Your task to perform on an android device: What is the recent news? Image 0: 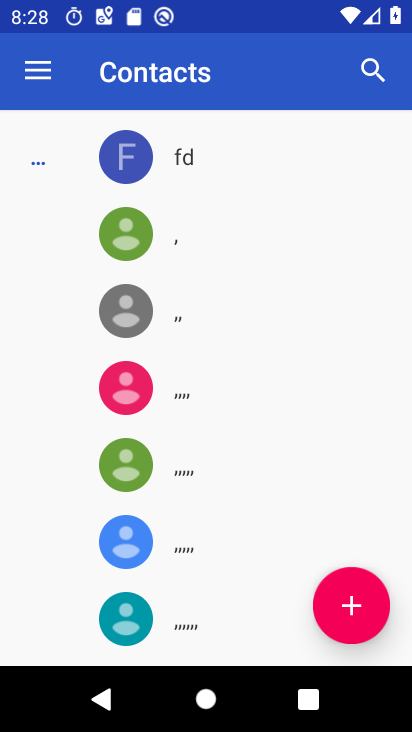
Step 0: press home button
Your task to perform on an android device: What is the recent news? Image 1: 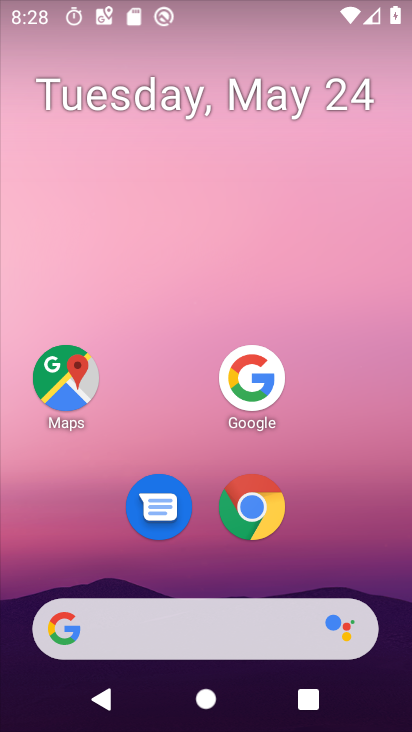
Step 1: click (63, 626)
Your task to perform on an android device: What is the recent news? Image 2: 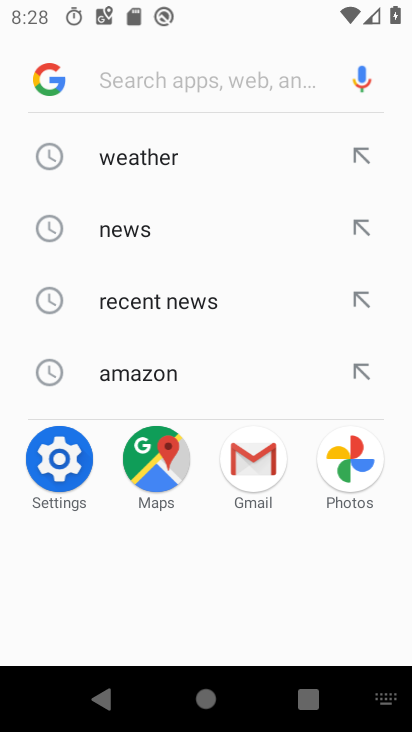
Step 2: click (138, 232)
Your task to perform on an android device: What is the recent news? Image 3: 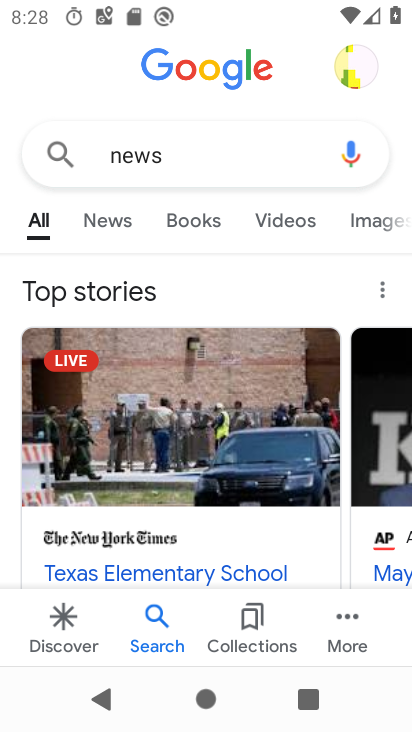
Step 3: click (114, 220)
Your task to perform on an android device: What is the recent news? Image 4: 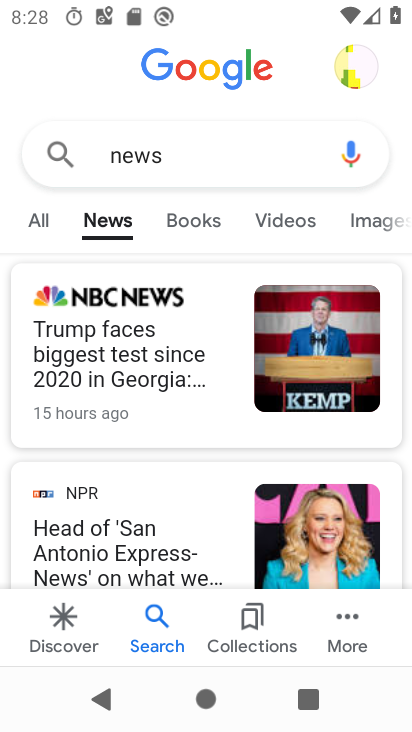
Step 4: task complete